Your task to perform on an android device: Go to Maps Image 0: 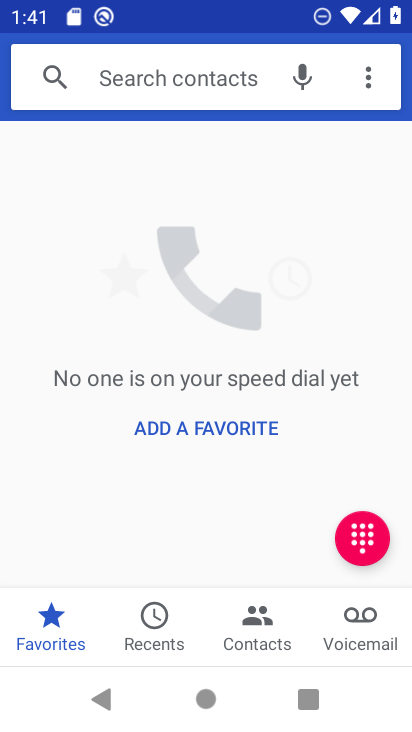
Step 0: press home button
Your task to perform on an android device: Go to Maps Image 1: 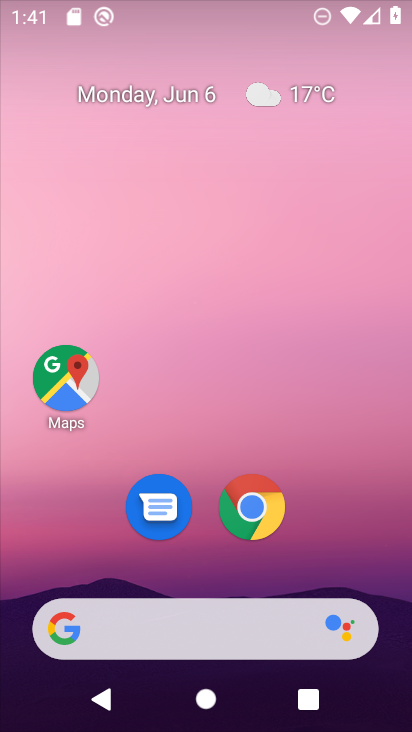
Step 1: drag from (215, 676) to (179, 160)
Your task to perform on an android device: Go to Maps Image 2: 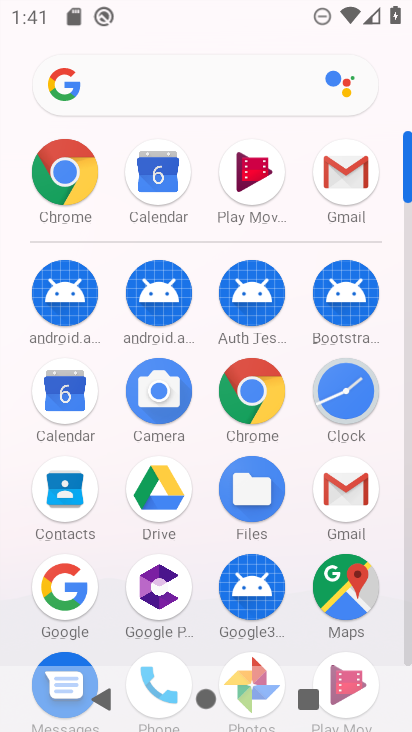
Step 2: click (357, 613)
Your task to perform on an android device: Go to Maps Image 3: 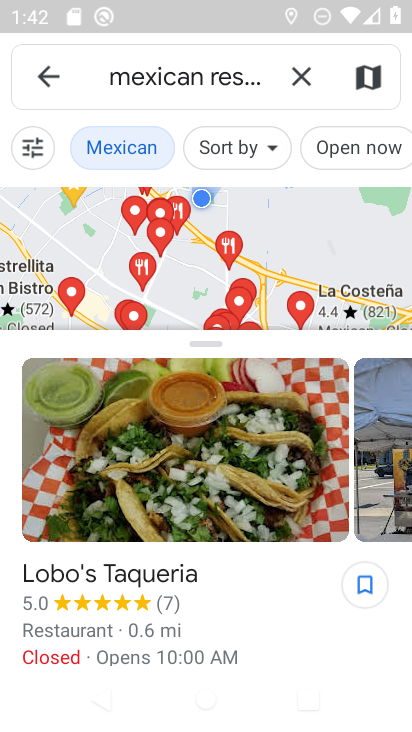
Step 3: click (42, 78)
Your task to perform on an android device: Go to Maps Image 4: 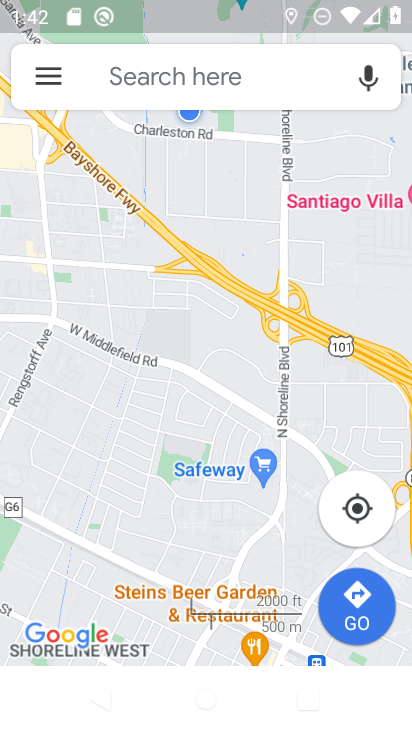
Step 4: task complete